Your task to perform on an android device: all mails in gmail Image 0: 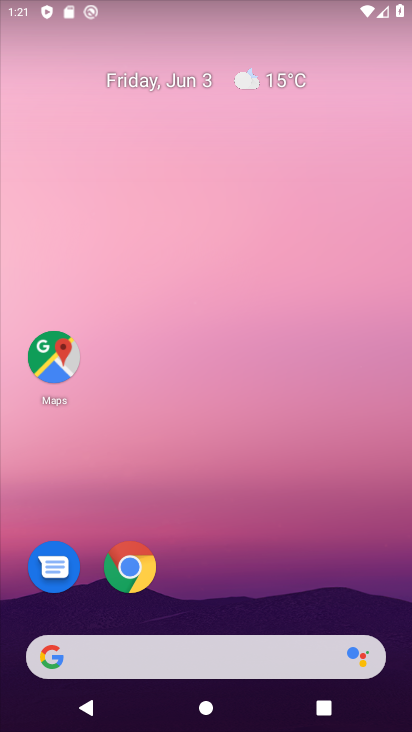
Step 0: drag from (212, 602) to (217, 40)
Your task to perform on an android device: all mails in gmail Image 1: 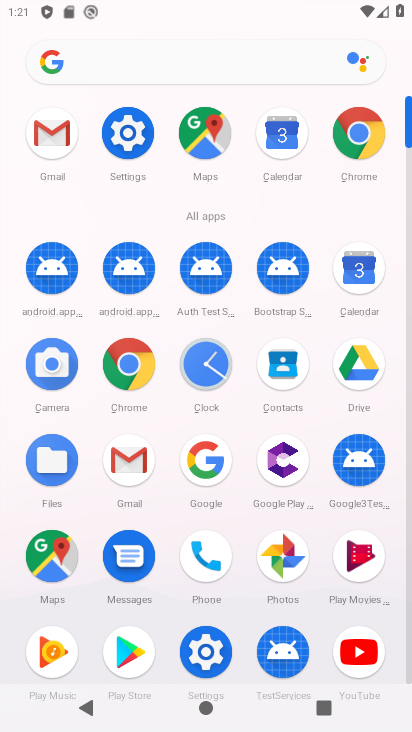
Step 1: click (126, 462)
Your task to perform on an android device: all mails in gmail Image 2: 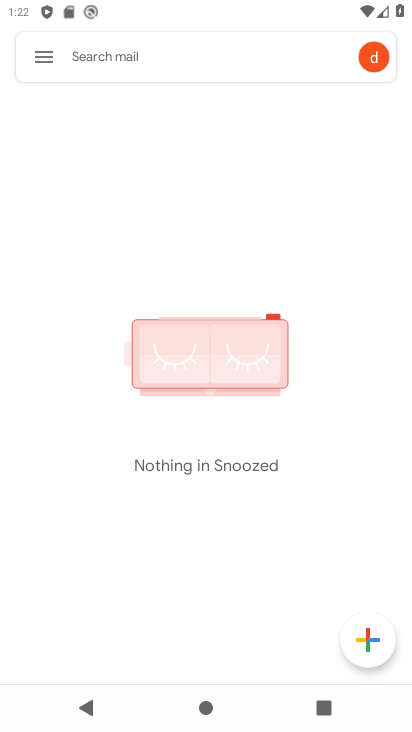
Step 2: click (42, 50)
Your task to perform on an android device: all mails in gmail Image 3: 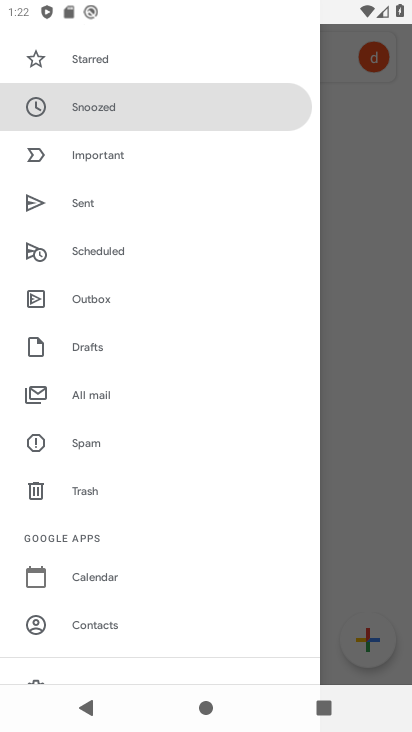
Step 3: click (73, 389)
Your task to perform on an android device: all mails in gmail Image 4: 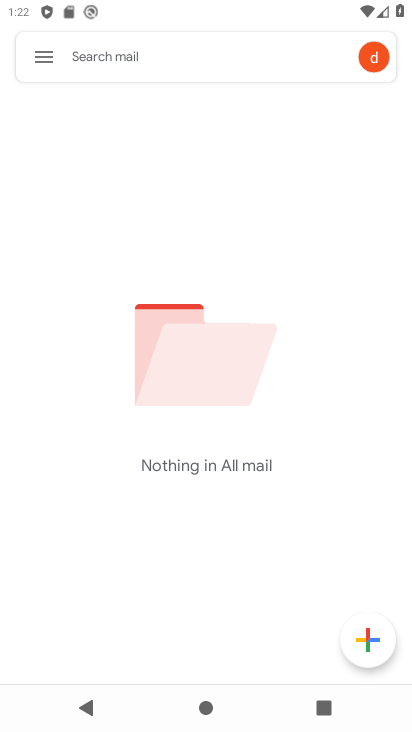
Step 4: task complete